Your task to perform on an android device: Open my contact list Image 0: 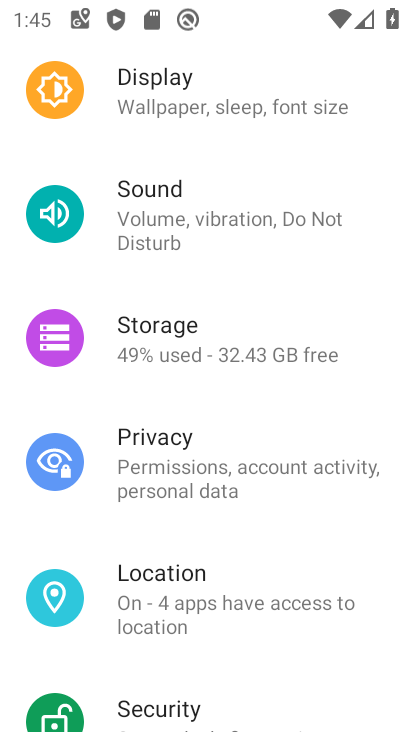
Step 0: press home button
Your task to perform on an android device: Open my contact list Image 1: 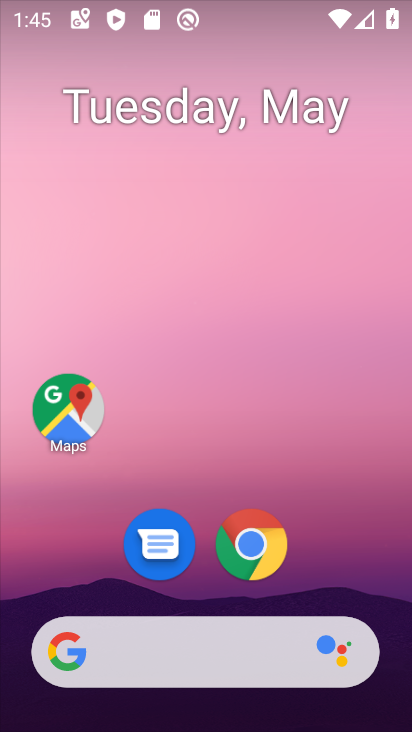
Step 1: drag from (347, 559) to (339, 53)
Your task to perform on an android device: Open my contact list Image 2: 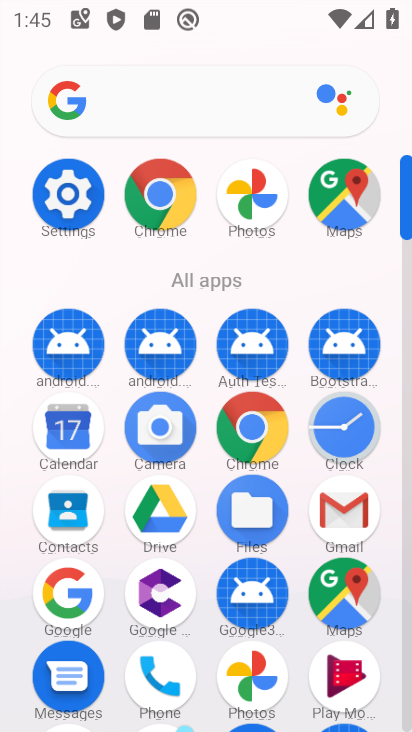
Step 2: click (68, 504)
Your task to perform on an android device: Open my contact list Image 3: 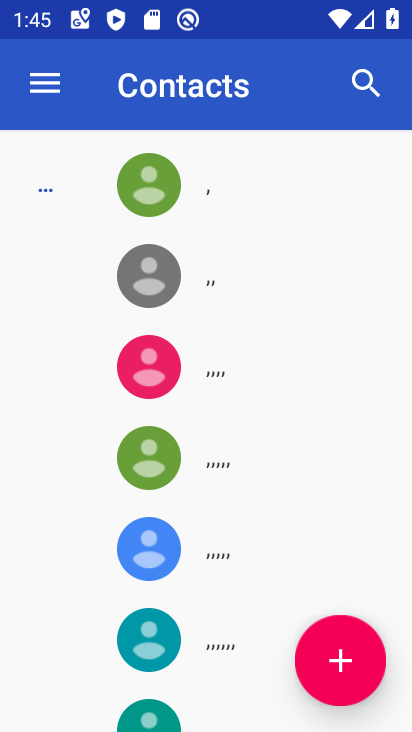
Step 3: task complete